Your task to perform on an android device: Is it going to rain this weekend? Image 0: 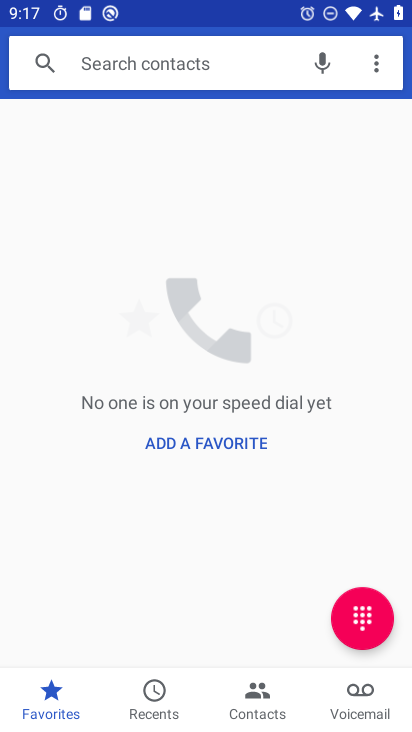
Step 0: press home button
Your task to perform on an android device: Is it going to rain this weekend? Image 1: 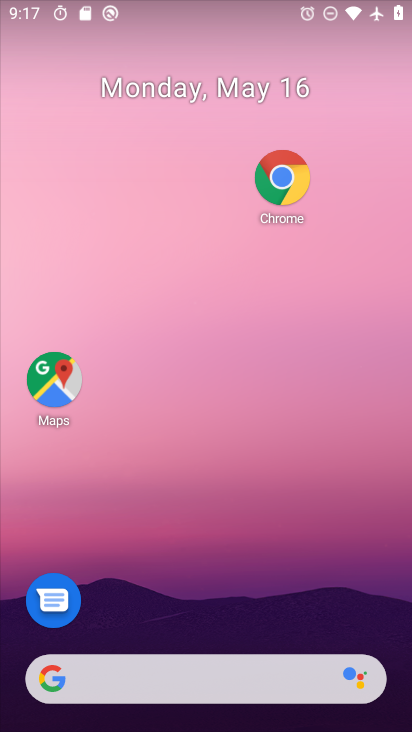
Step 1: click (54, 681)
Your task to perform on an android device: Is it going to rain this weekend? Image 2: 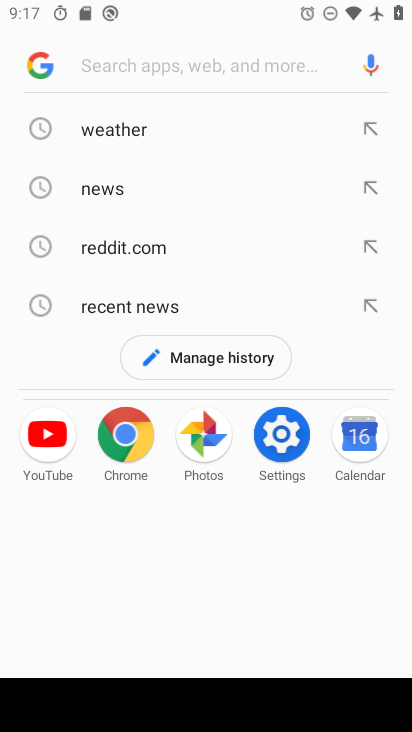
Step 2: click (130, 137)
Your task to perform on an android device: Is it going to rain this weekend? Image 3: 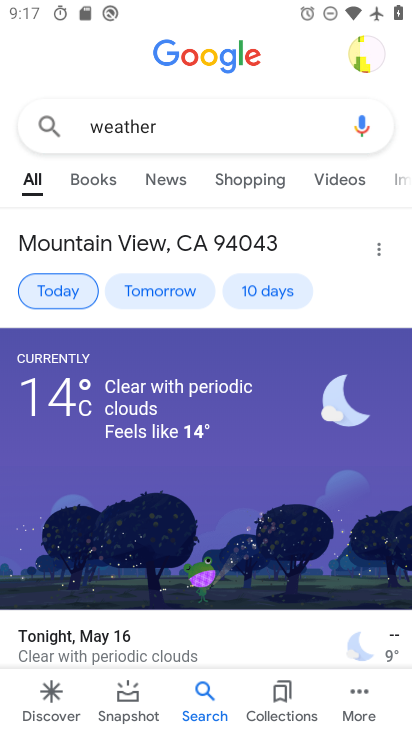
Step 3: click (276, 287)
Your task to perform on an android device: Is it going to rain this weekend? Image 4: 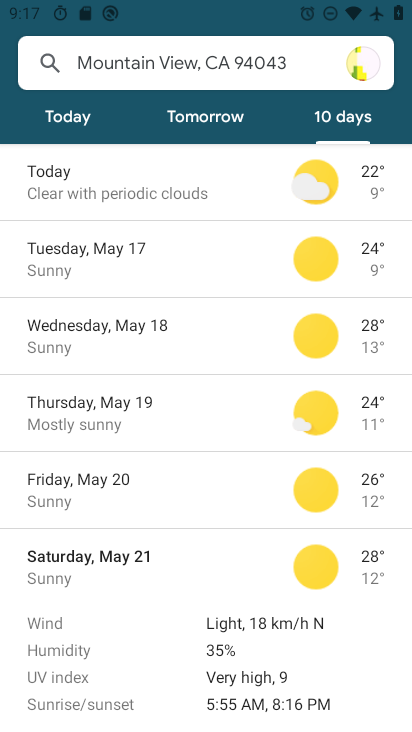
Step 4: task complete